Your task to perform on an android device: Search for vegetarian restaurants on Maps Image 0: 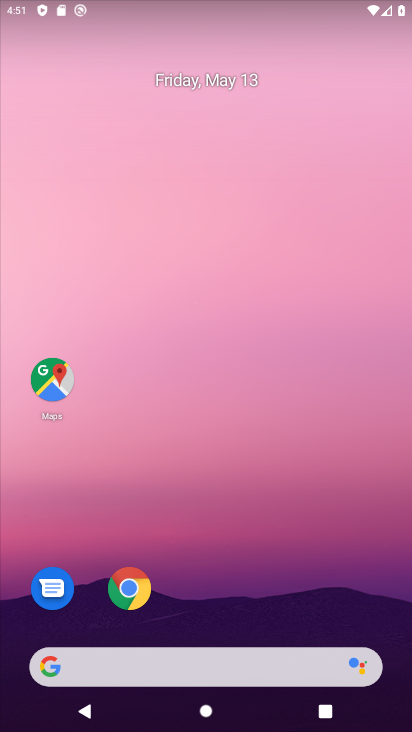
Step 0: click (60, 391)
Your task to perform on an android device: Search for vegetarian restaurants on Maps Image 1: 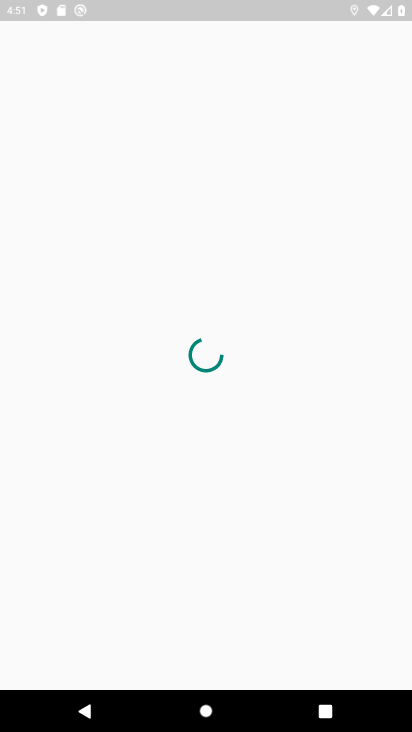
Step 1: click (177, 53)
Your task to perform on an android device: Search for vegetarian restaurants on Maps Image 2: 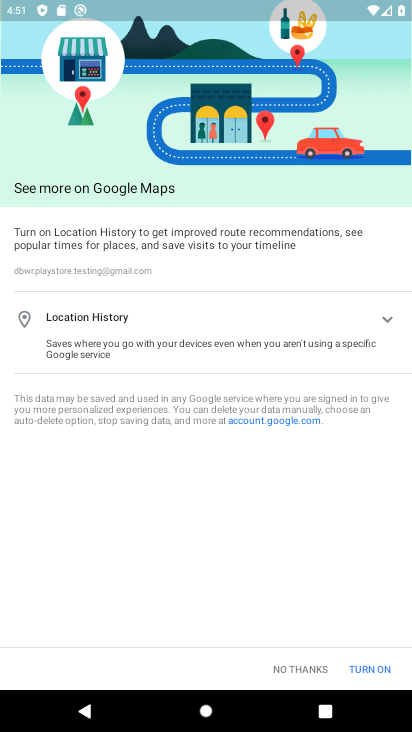
Step 2: click (281, 672)
Your task to perform on an android device: Search for vegetarian restaurants on Maps Image 3: 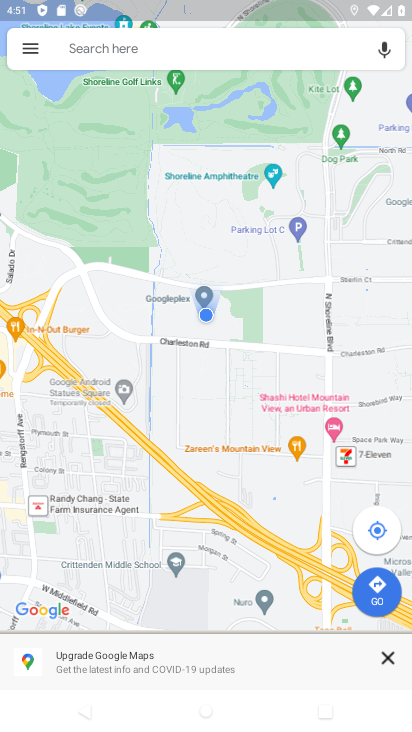
Step 3: click (135, 46)
Your task to perform on an android device: Search for vegetarian restaurants on Maps Image 4: 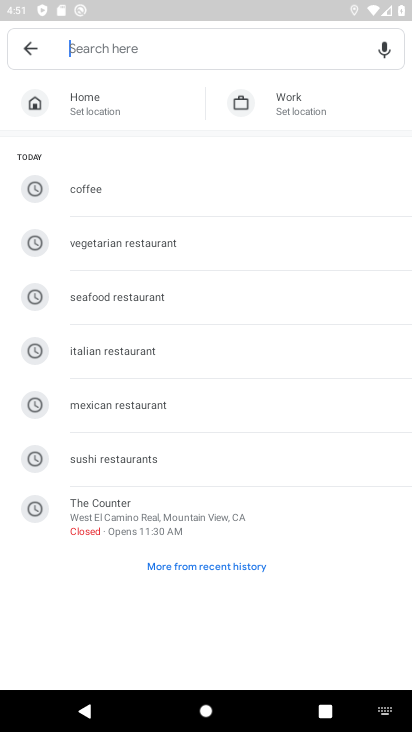
Step 4: type "vegetarian restaurants"
Your task to perform on an android device: Search for vegetarian restaurants on Maps Image 5: 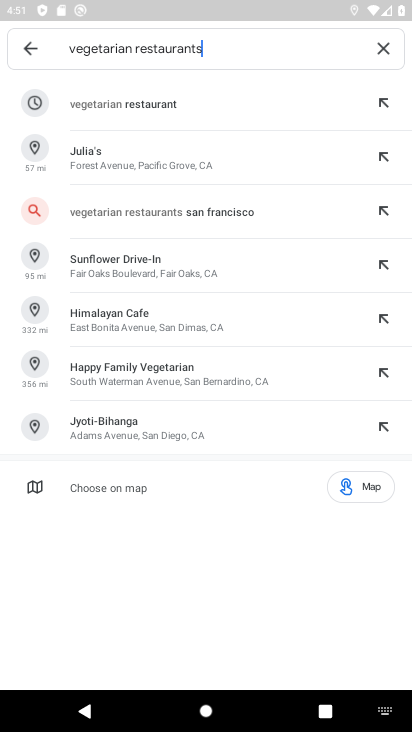
Step 5: click (168, 113)
Your task to perform on an android device: Search for vegetarian restaurants on Maps Image 6: 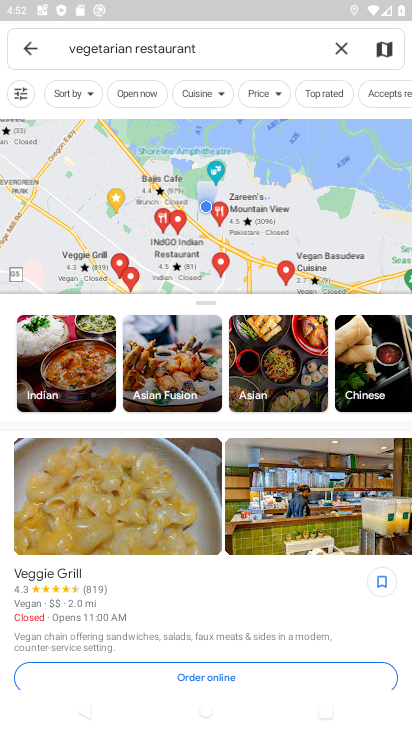
Step 6: task complete